Your task to perform on an android device: Go to battery settings Image 0: 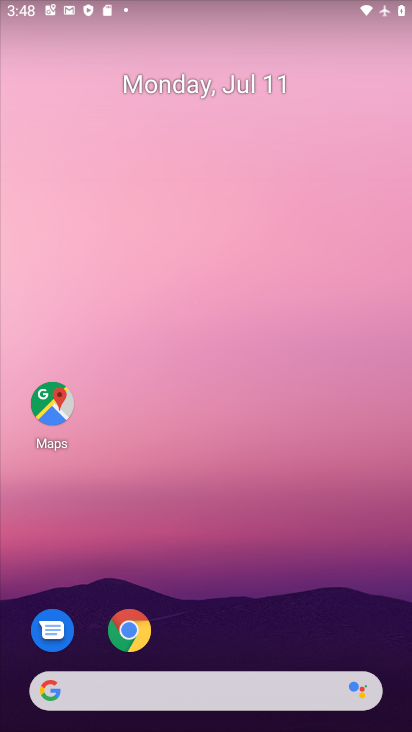
Step 0: drag from (250, 594) to (146, 183)
Your task to perform on an android device: Go to battery settings Image 1: 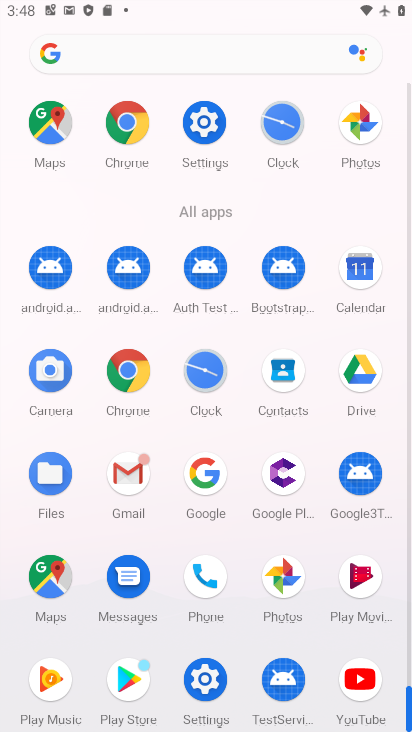
Step 1: drag from (259, 670) to (178, 208)
Your task to perform on an android device: Go to battery settings Image 2: 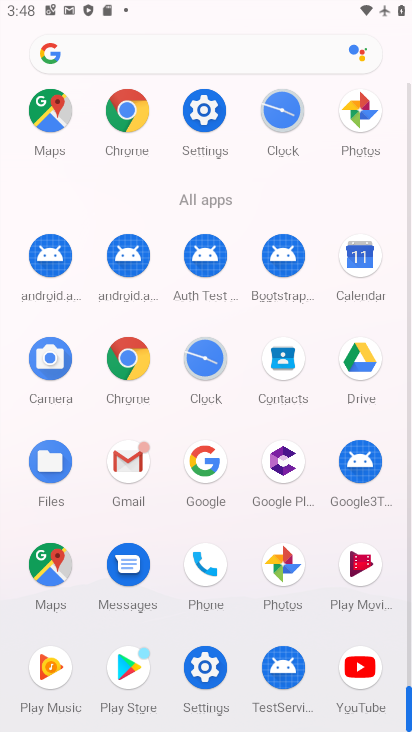
Step 2: click (215, 126)
Your task to perform on an android device: Go to battery settings Image 3: 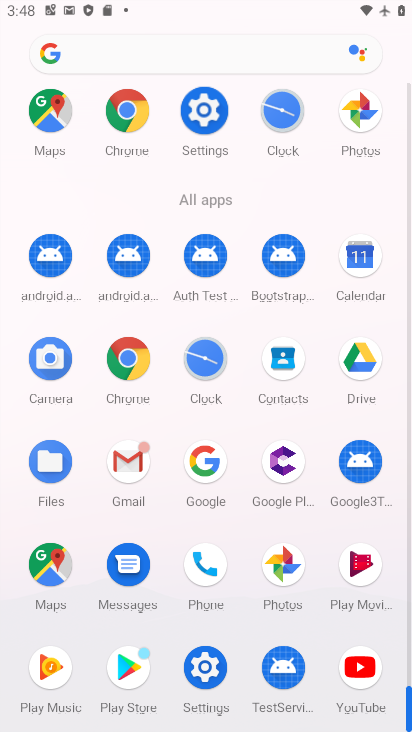
Step 3: click (215, 126)
Your task to perform on an android device: Go to battery settings Image 4: 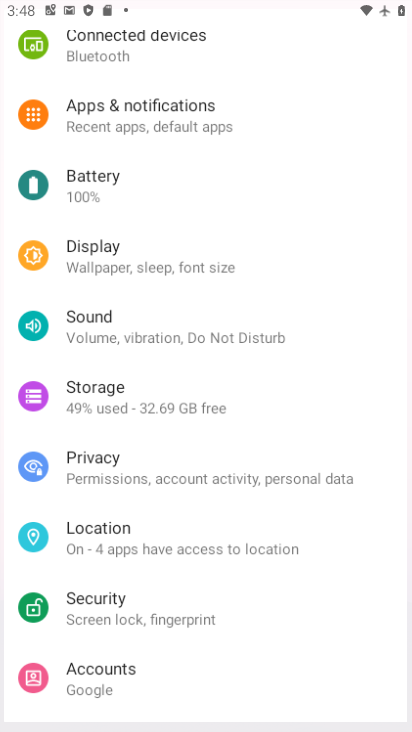
Step 4: click (215, 126)
Your task to perform on an android device: Go to battery settings Image 5: 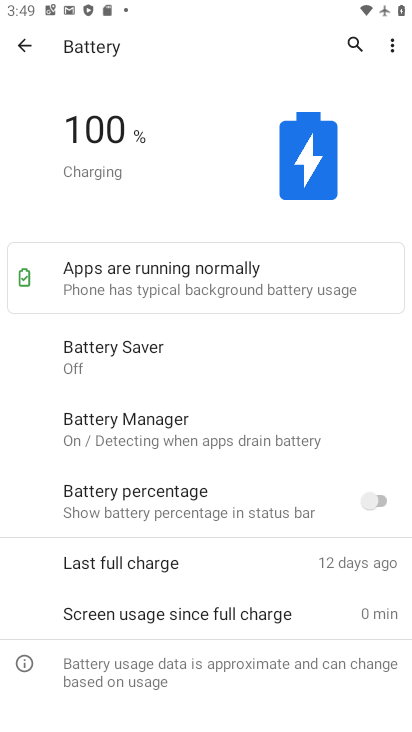
Step 5: drag from (179, 538) to (150, 107)
Your task to perform on an android device: Go to battery settings Image 6: 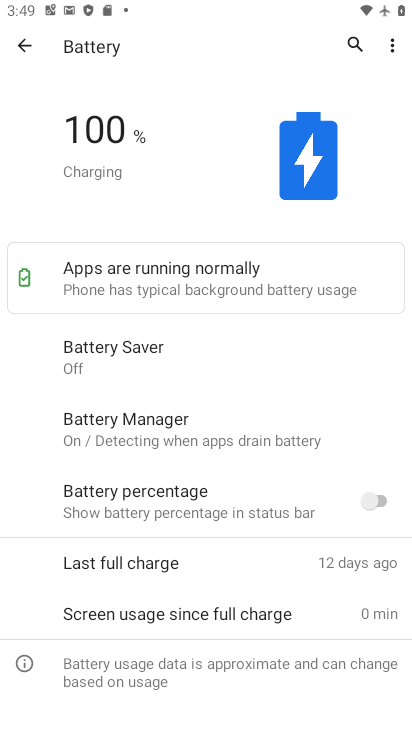
Step 6: click (230, 125)
Your task to perform on an android device: Go to battery settings Image 7: 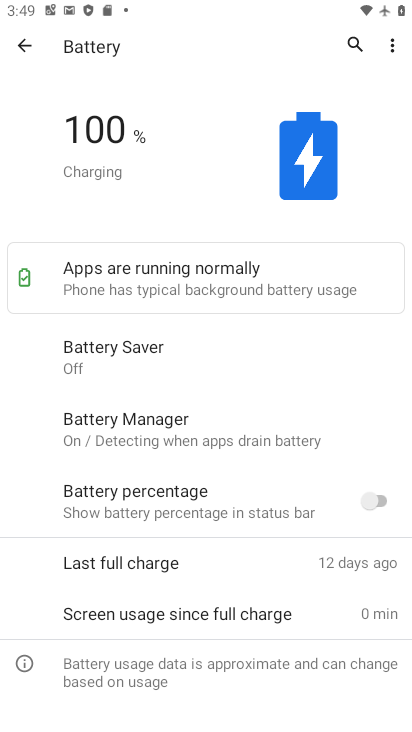
Step 7: task complete